Your task to perform on an android device: Search for vegetarian restaurants on Maps Image 0: 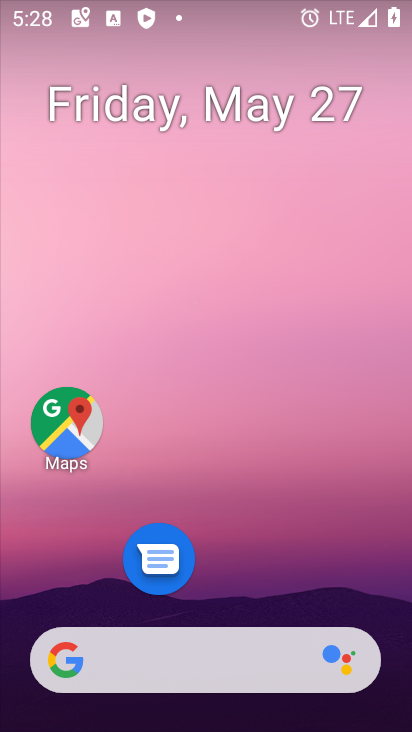
Step 0: drag from (305, 400) to (332, 58)
Your task to perform on an android device: Search for vegetarian restaurants on Maps Image 1: 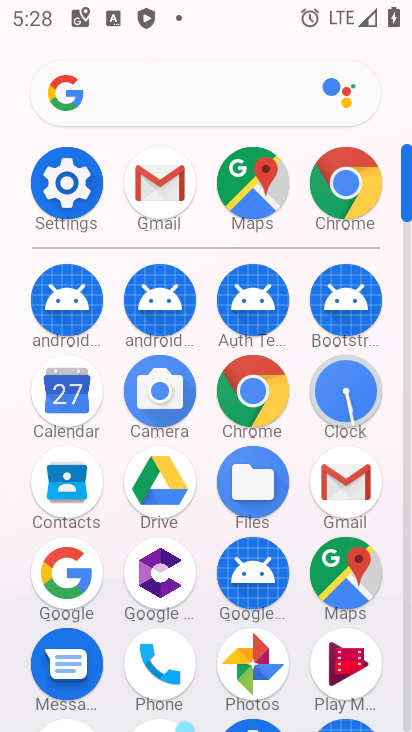
Step 1: click (353, 570)
Your task to perform on an android device: Search for vegetarian restaurants on Maps Image 2: 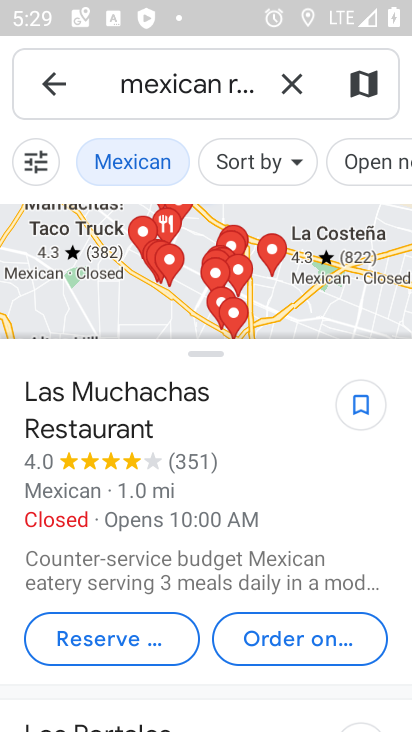
Step 2: press back button
Your task to perform on an android device: Search for vegetarian restaurants on Maps Image 3: 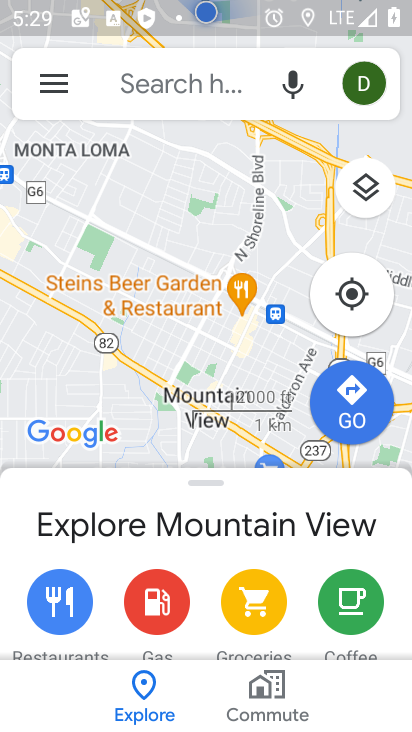
Step 3: click (214, 76)
Your task to perform on an android device: Search for vegetarian restaurants on Maps Image 4: 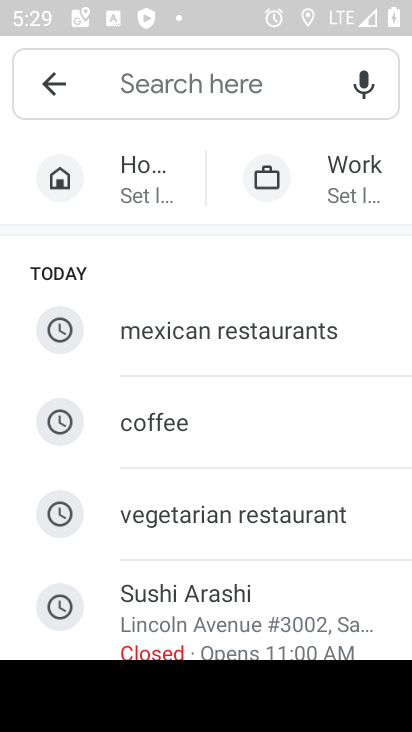
Step 4: click (300, 527)
Your task to perform on an android device: Search for vegetarian restaurants on Maps Image 5: 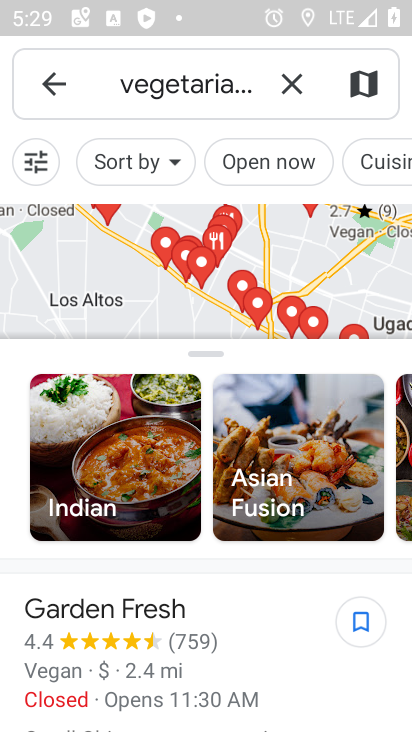
Step 5: task complete